Your task to perform on an android device: toggle priority inbox in the gmail app Image 0: 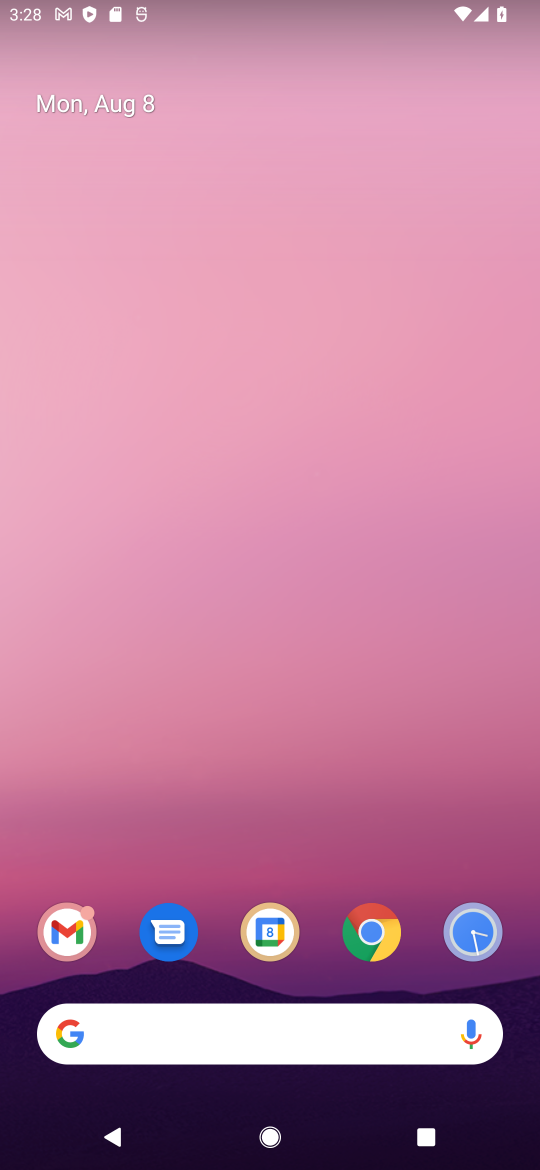
Step 0: click (70, 972)
Your task to perform on an android device: toggle priority inbox in the gmail app Image 1: 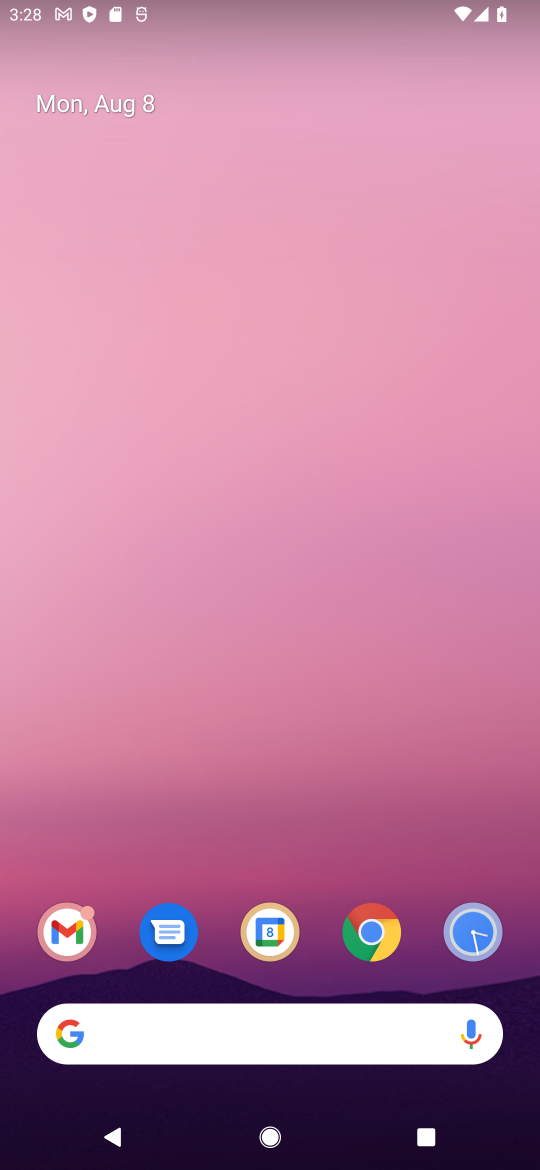
Step 1: click (67, 926)
Your task to perform on an android device: toggle priority inbox in the gmail app Image 2: 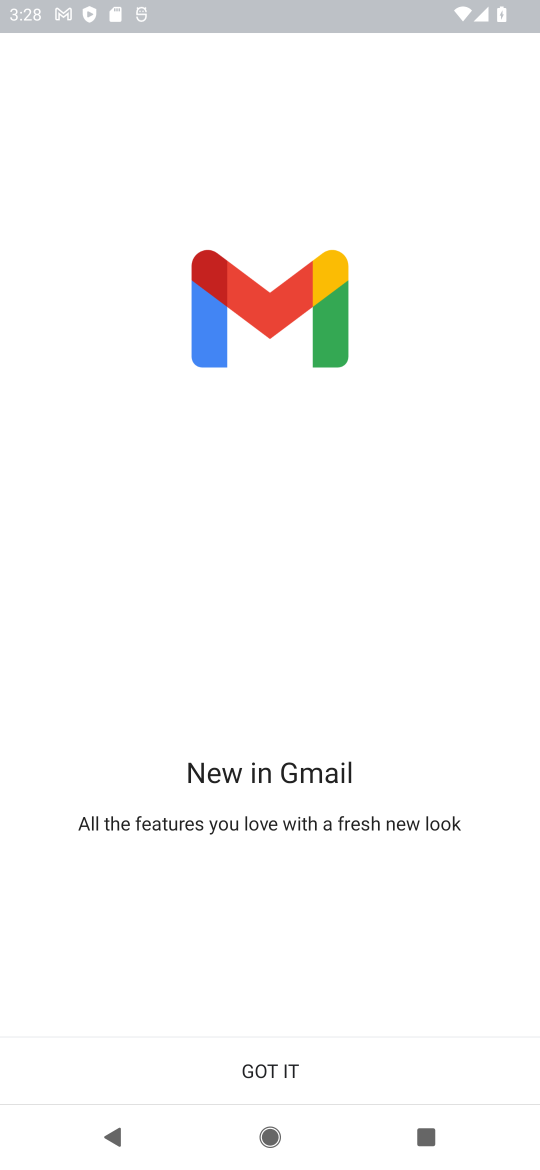
Step 2: click (261, 1062)
Your task to perform on an android device: toggle priority inbox in the gmail app Image 3: 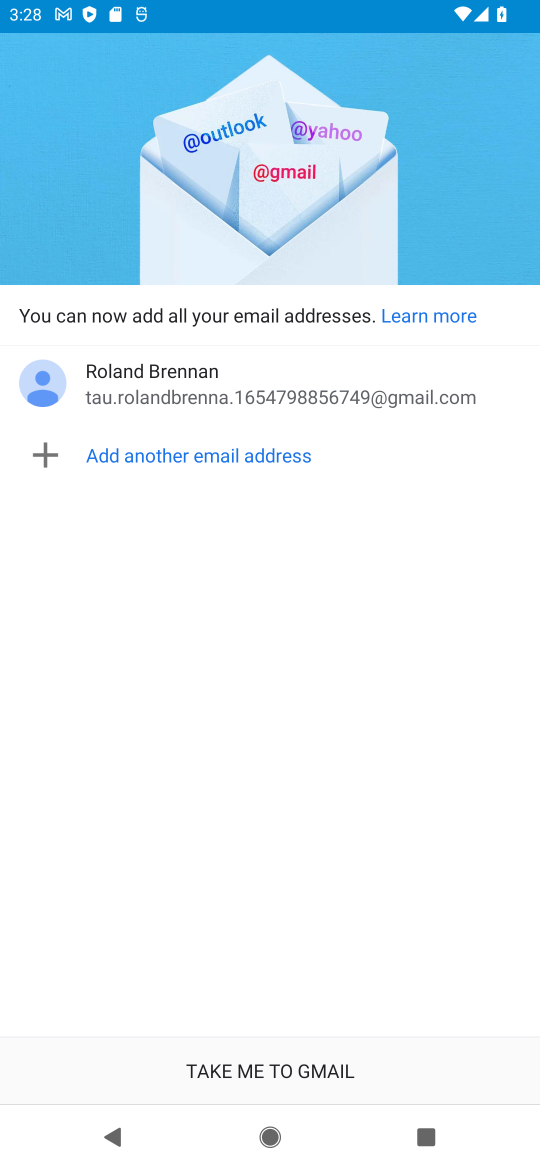
Step 3: click (261, 1062)
Your task to perform on an android device: toggle priority inbox in the gmail app Image 4: 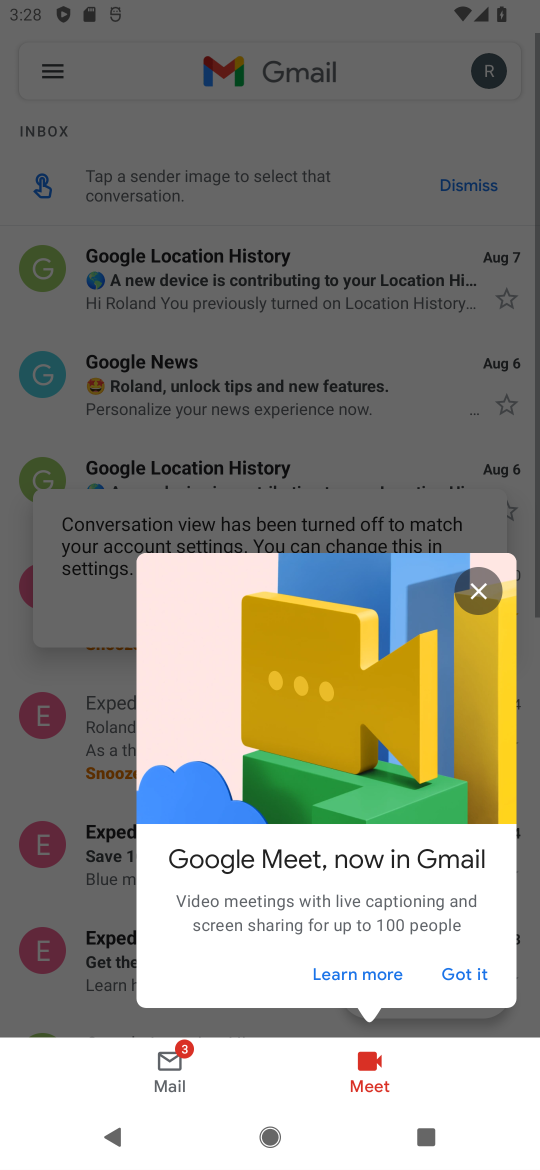
Step 4: click (476, 602)
Your task to perform on an android device: toggle priority inbox in the gmail app Image 5: 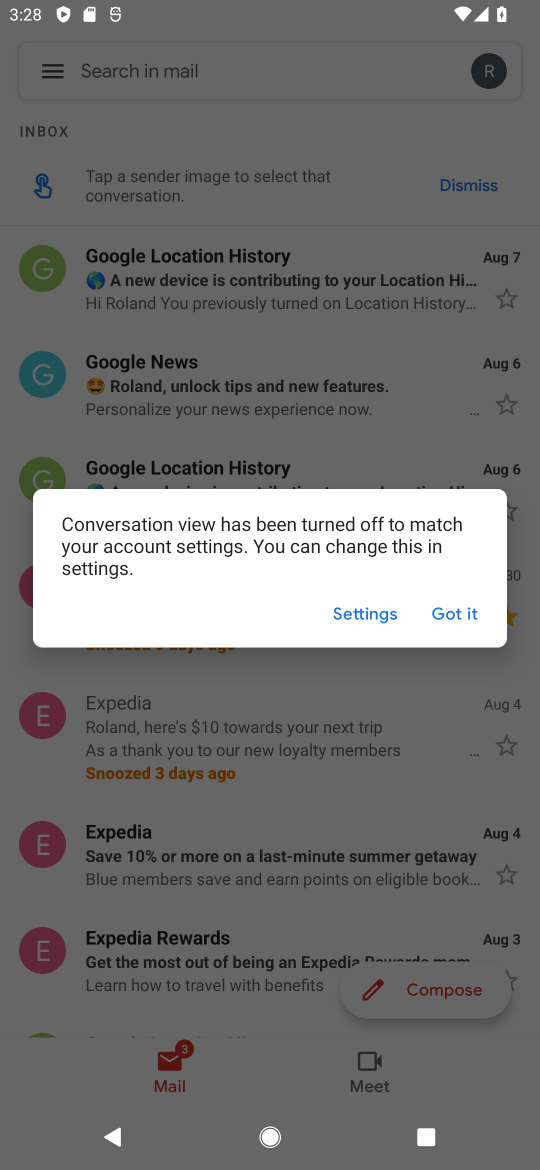
Step 5: click (454, 606)
Your task to perform on an android device: toggle priority inbox in the gmail app Image 6: 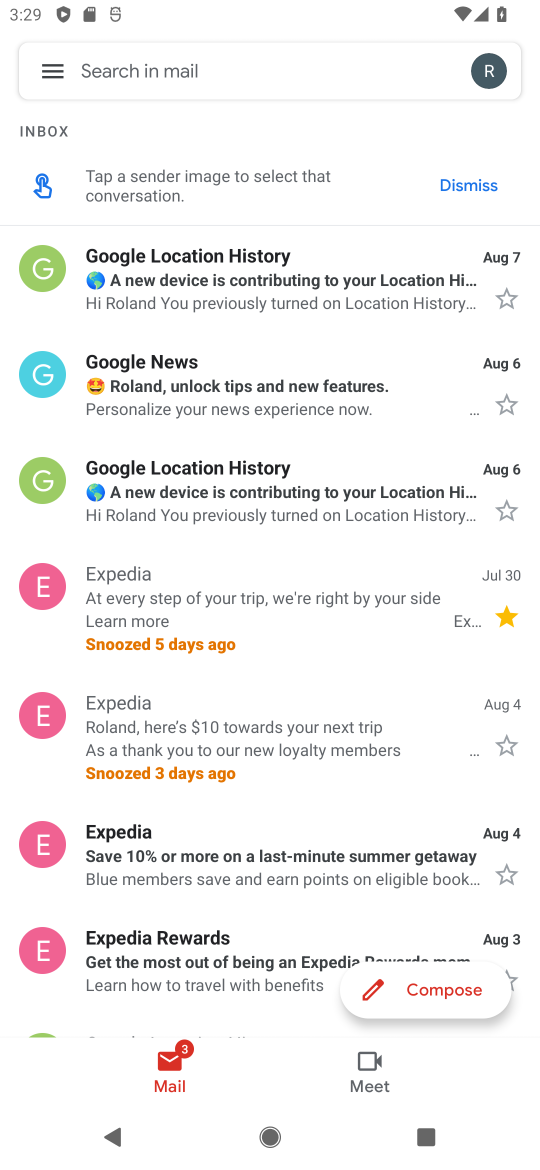
Step 6: click (54, 71)
Your task to perform on an android device: toggle priority inbox in the gmail app Image 7: 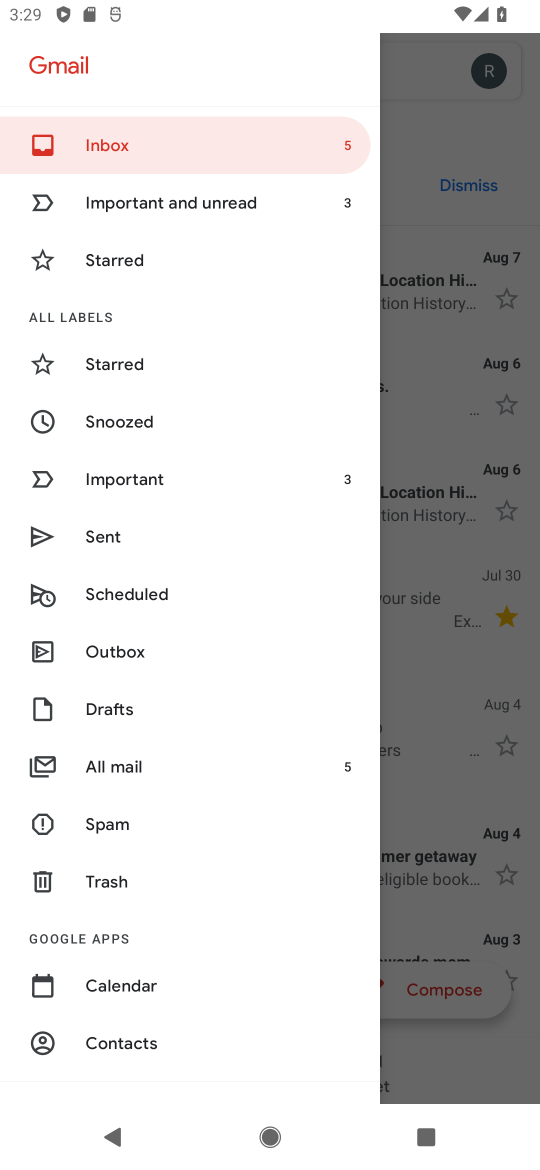
Step 7: drag from (97, 897) to (205, 44)
Your task to perform on an android device: toggle priority inbox in the gmail app Image 8: 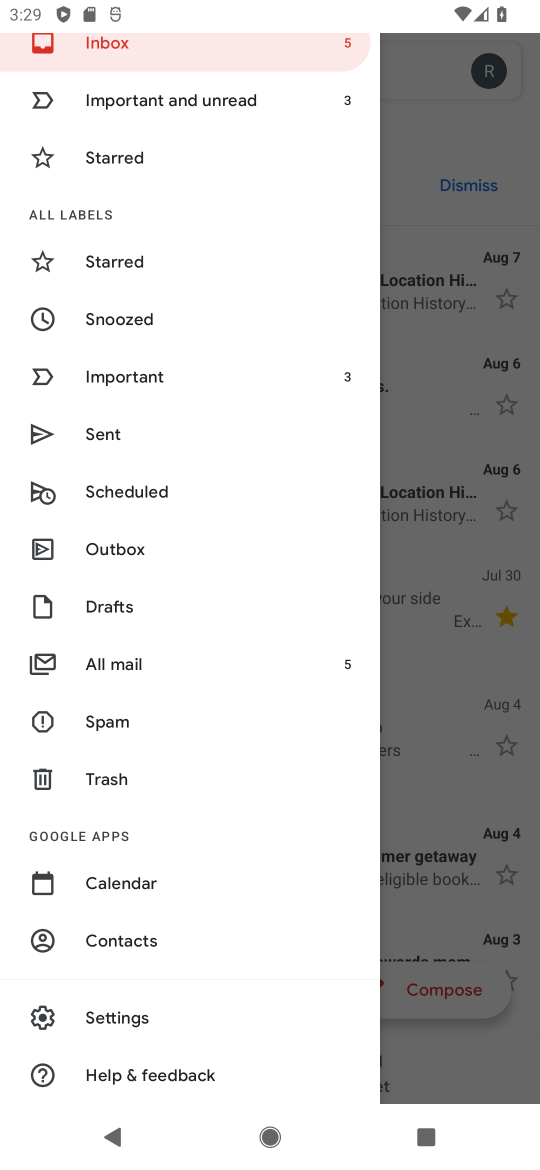
Step 8: click (75, 1026)
Your task to perform on an android device: toggle priority inbox in the gmail app Image 9: 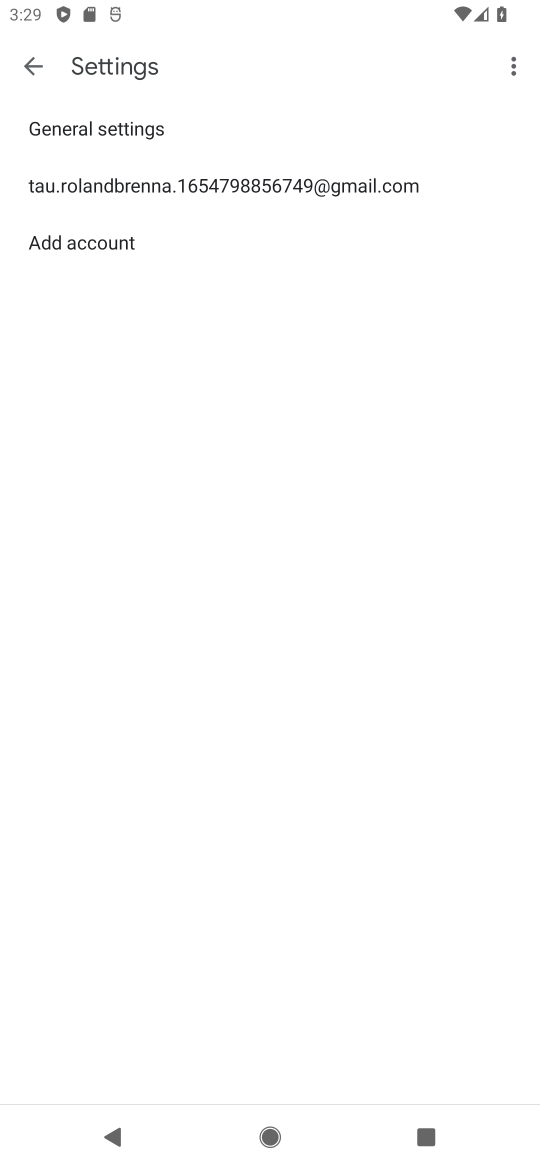
Step 9: click (318, 206)
Your task to perform on an android device: toggle priority inbox in the gmail app Image 10: 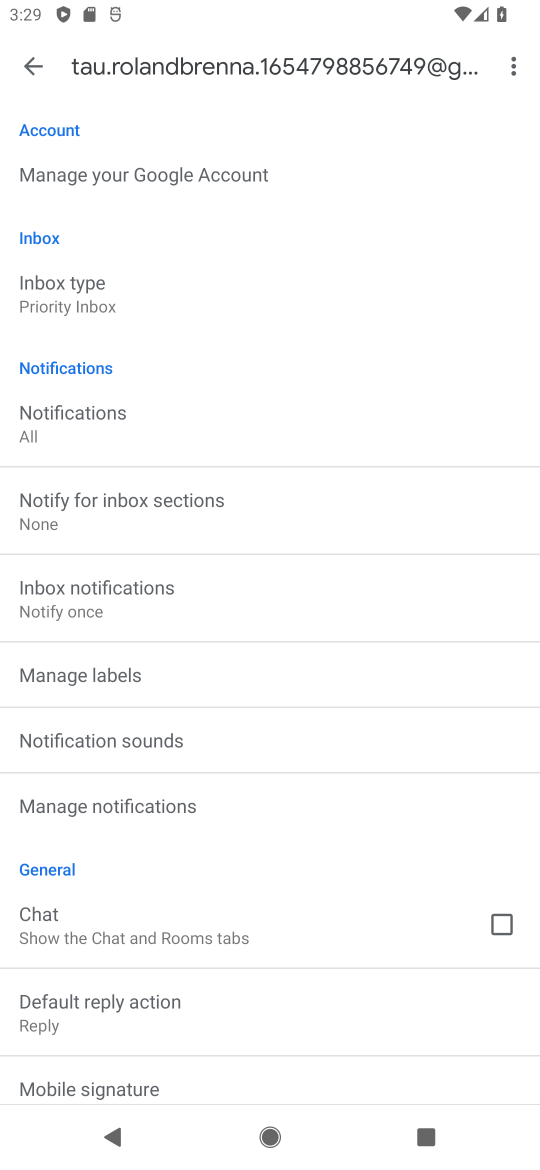
Step 10: click (98, 320)
Your task to perform on an android device: toggle priority inbox in the gmail app Image 11: 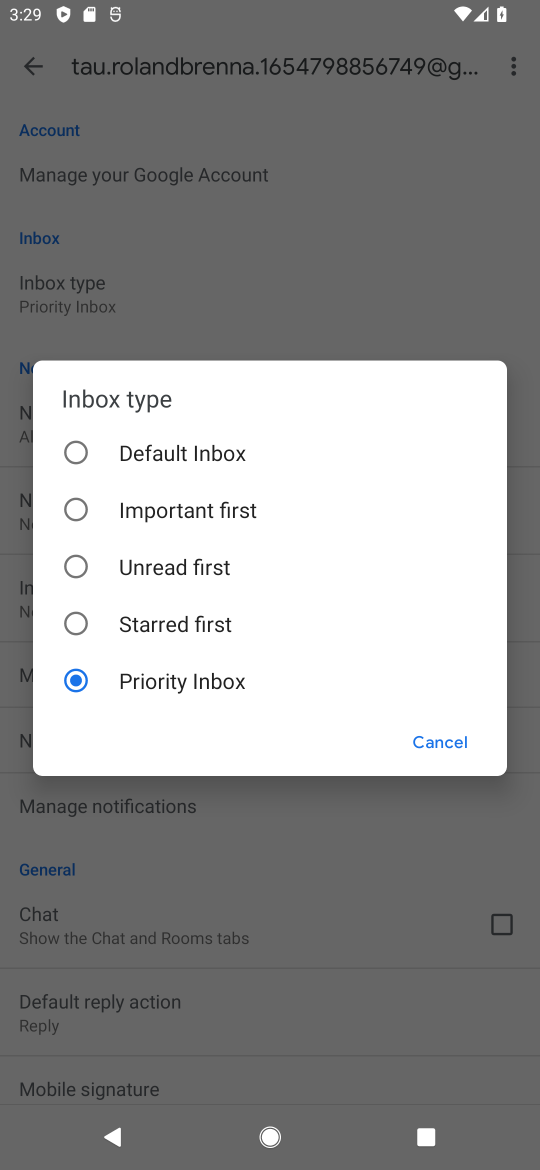
Step 11: task complete